Your task to perform on an android device: Add "alienware area 51" to the cart on walmart.com Image 0: 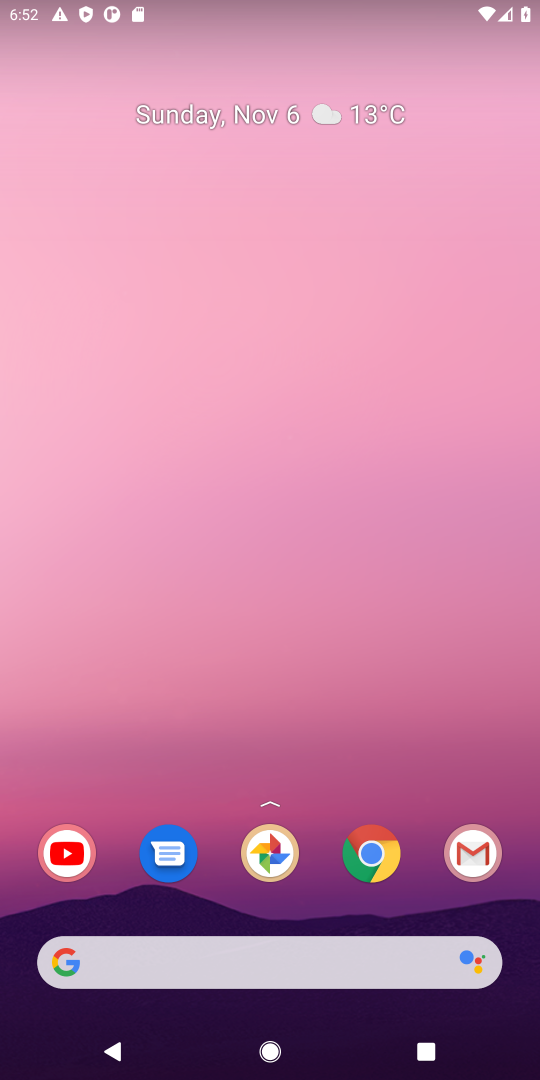
Step 0: click (368, 857)
Your task to perform on an android device: Add "alienware area 51" to the cart on walmart.com Image 1: 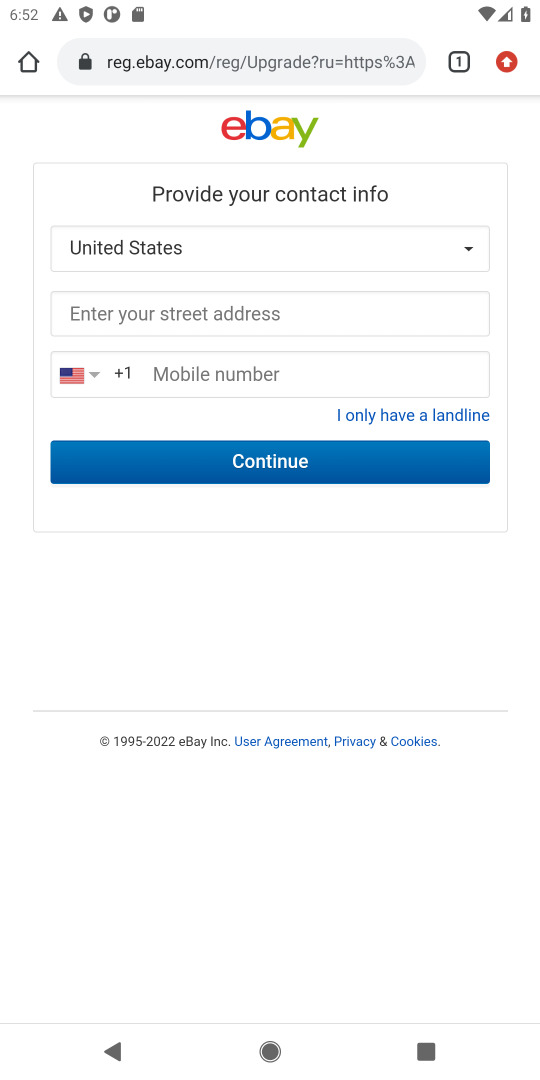
Step 1: click (276, 37)
Your task to perform on an android device: Add "alienware area 51" to the cart on walmart.com Image 2: 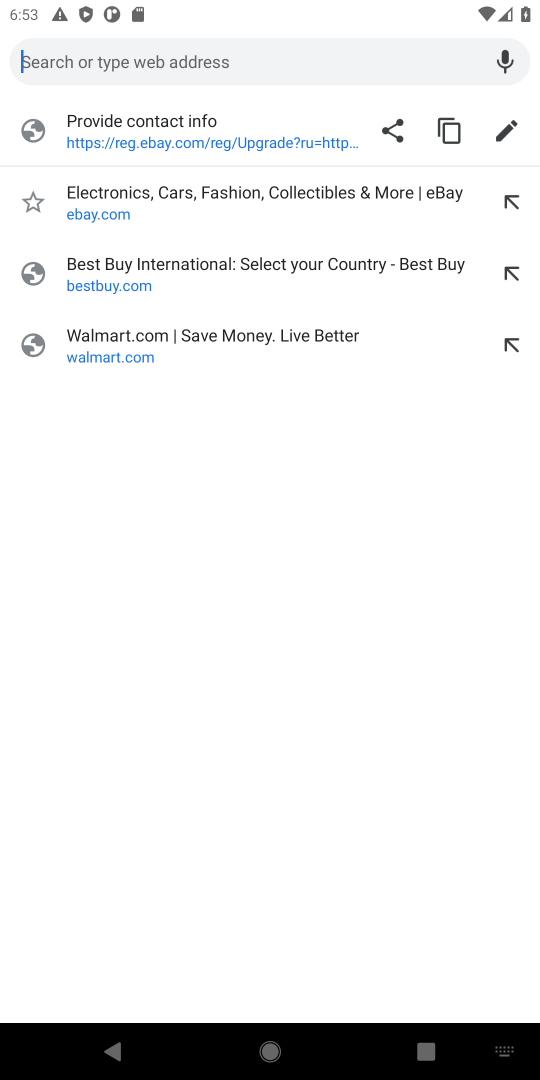
Step 2: type "walmart.com"
Your task to perform on an android device: Add "alienware area 51" to the cart on walmart.com Image 3: 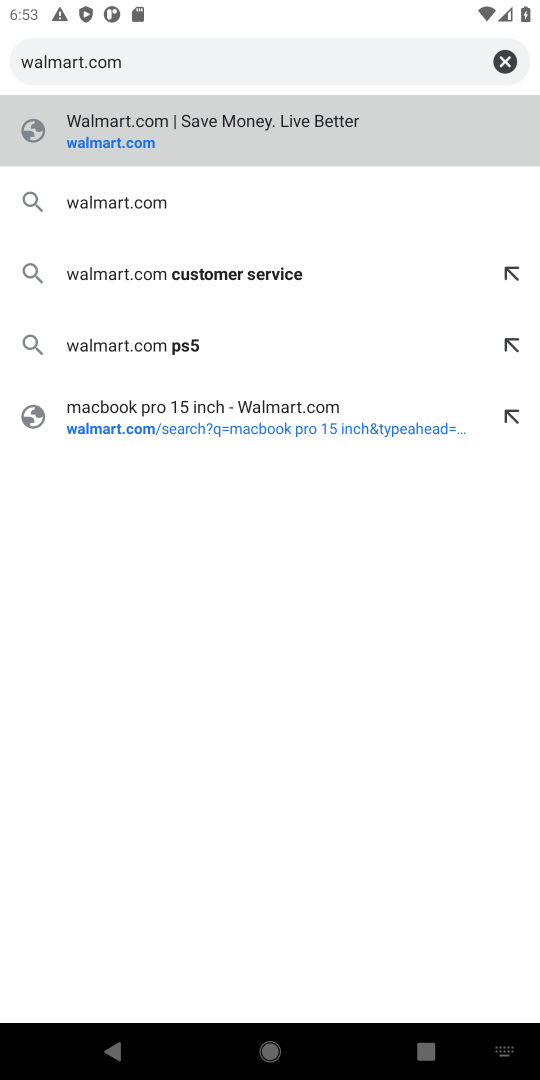
Step 3: click (93, 122)
Your task to perform on an android device: Add "alienware area 51" to the cart on walmart.com Image 4: 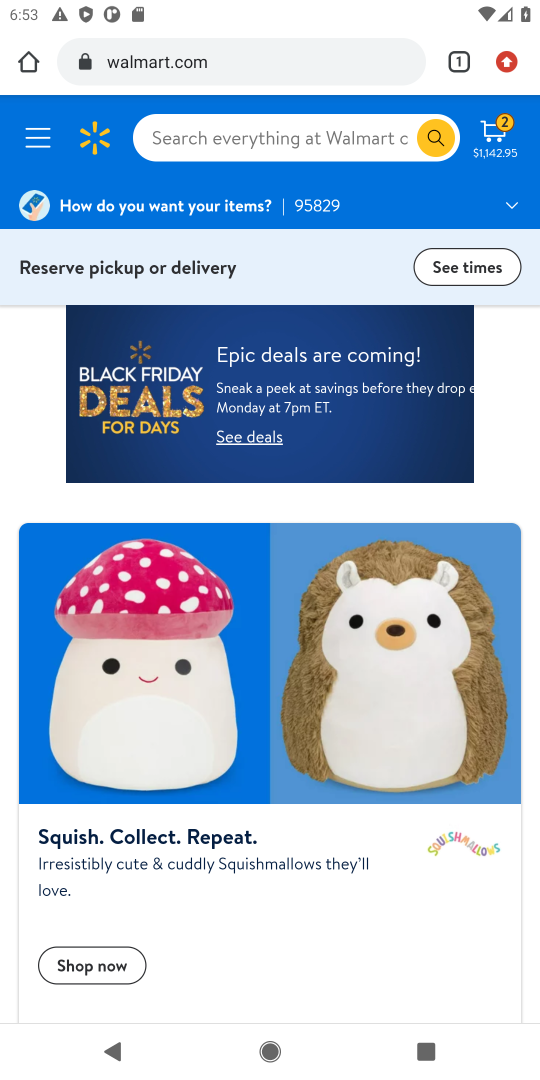
Step 4: click (183, 136)
Your task to perform on an android device: Add "alienware area 51" to the cart on walmart.com Image 5: 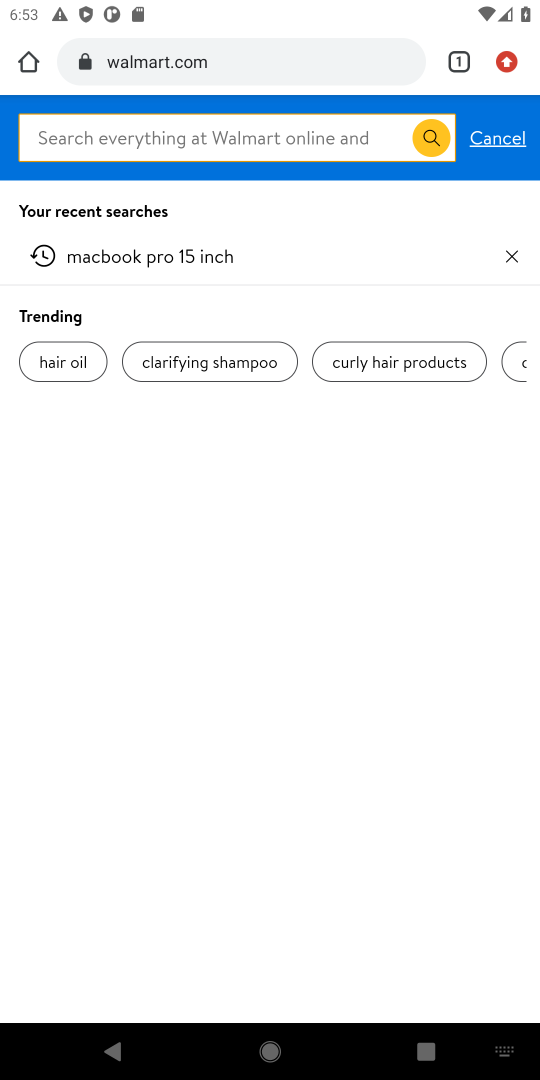
Step 5: type "alienware area 51"
Your task to perform on an android device: Add "alienware area 51" to the cart on walmart.com Image 6: 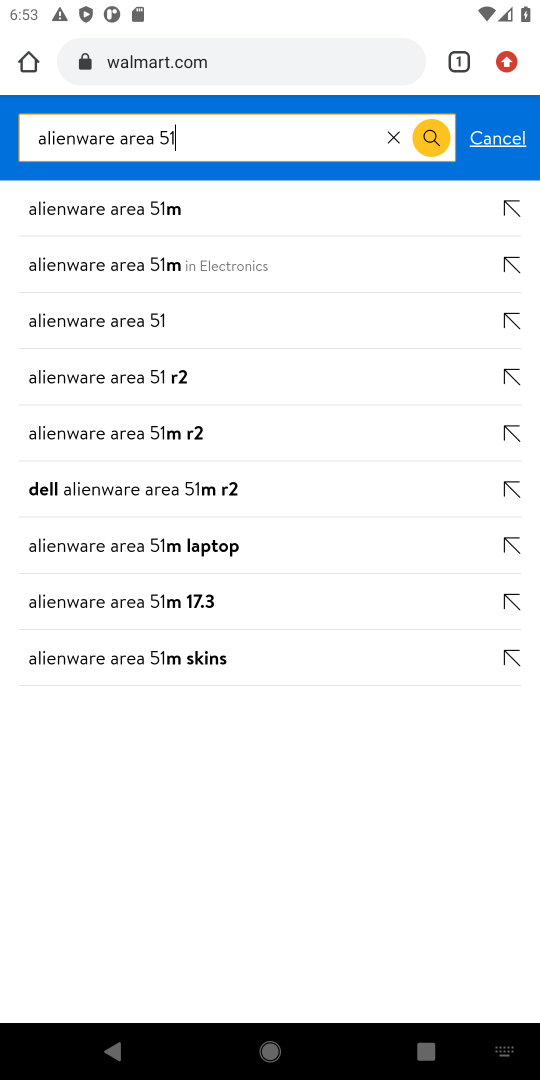
Step 6: click (113, 321)
Your task to perform on an android device: Add "alienware area 51" to the cart on walmart.com Image 7: 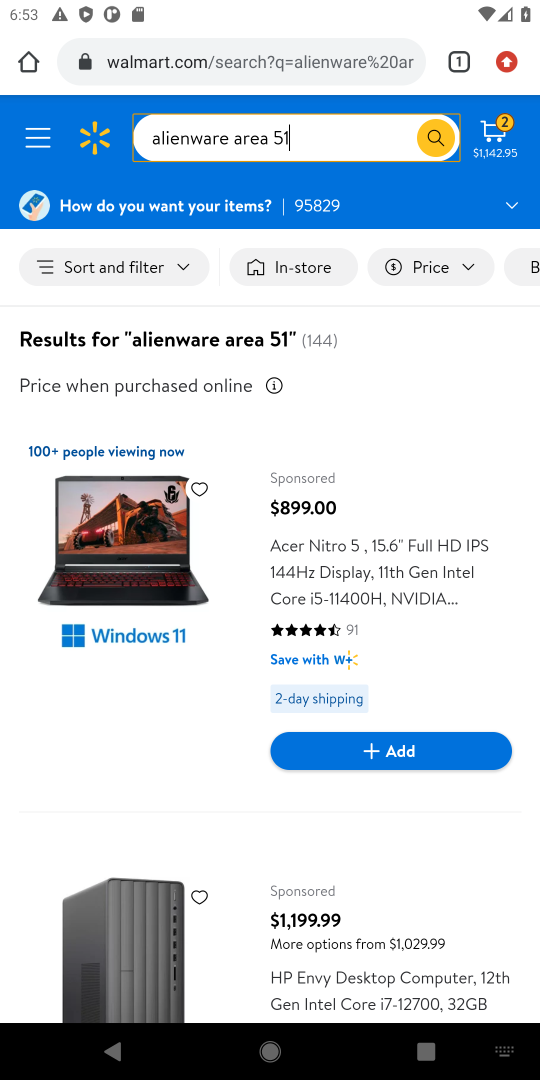
Step 7: drag from (442, 691) to (403, 231)
Your task to perform on an android device: Add "alienware area 51" to the cart on walmart.com Image 8: 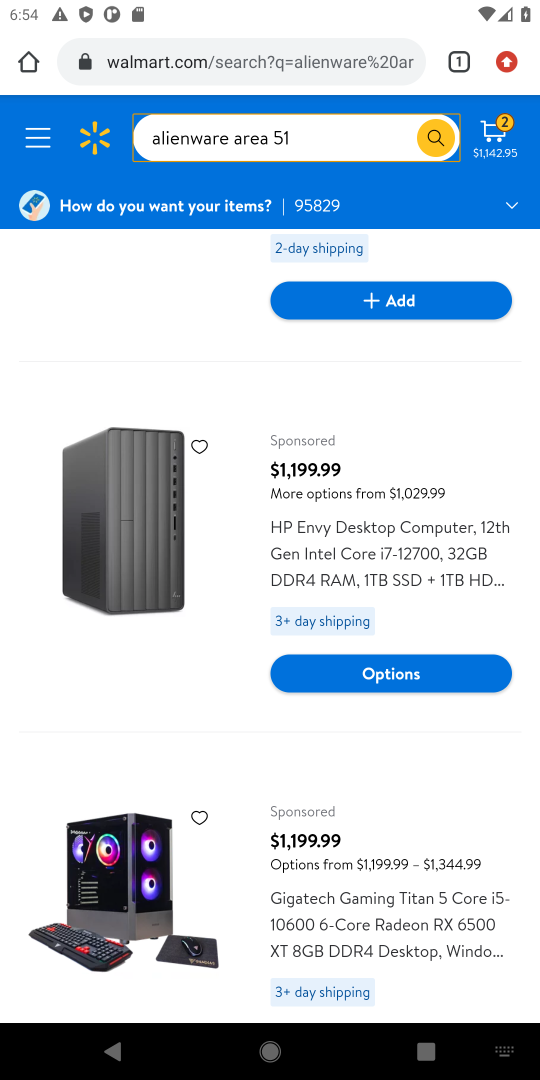
Step 8: drag from (409, 629) to (362, 302)
Your task to perform on an android device: Add "alienware area 51" to the cart on walmart.com Image 9: 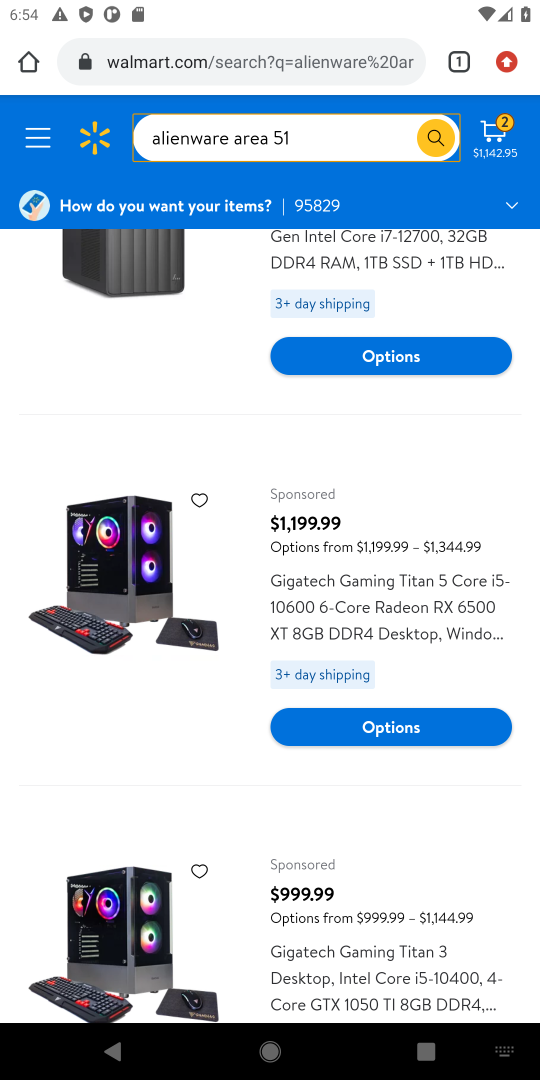
Step 9: drag from (390, 661) to (369, 263)
Your task to perform on an android device: Add "alienware area 51" to the cart on walmart.com Image 10: 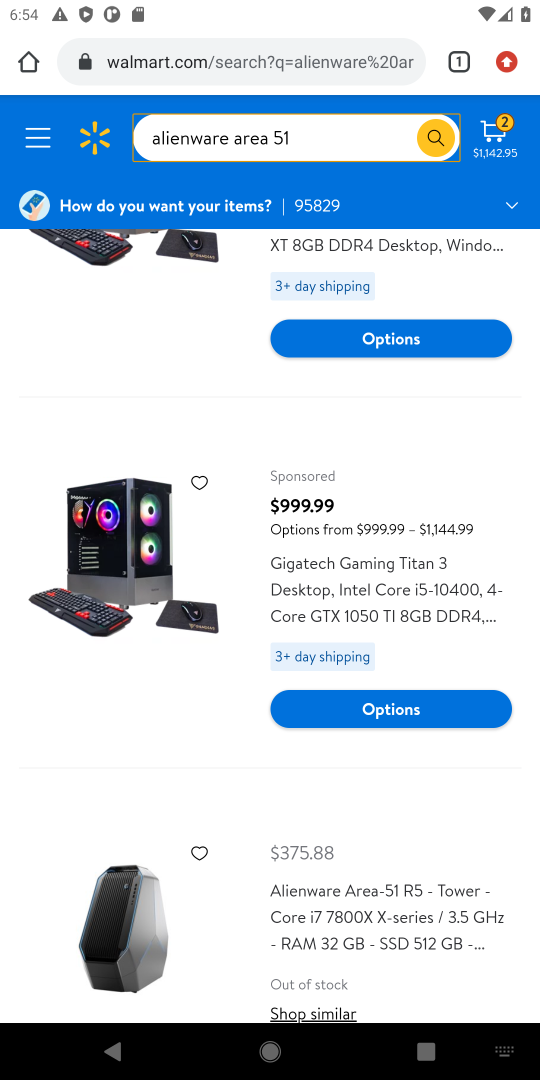
Step 10: drag from (348, 919) to (328, 482)
Your task to perform on an android device: Add "alienware area 51" to the cart on walmart.com Image 11: 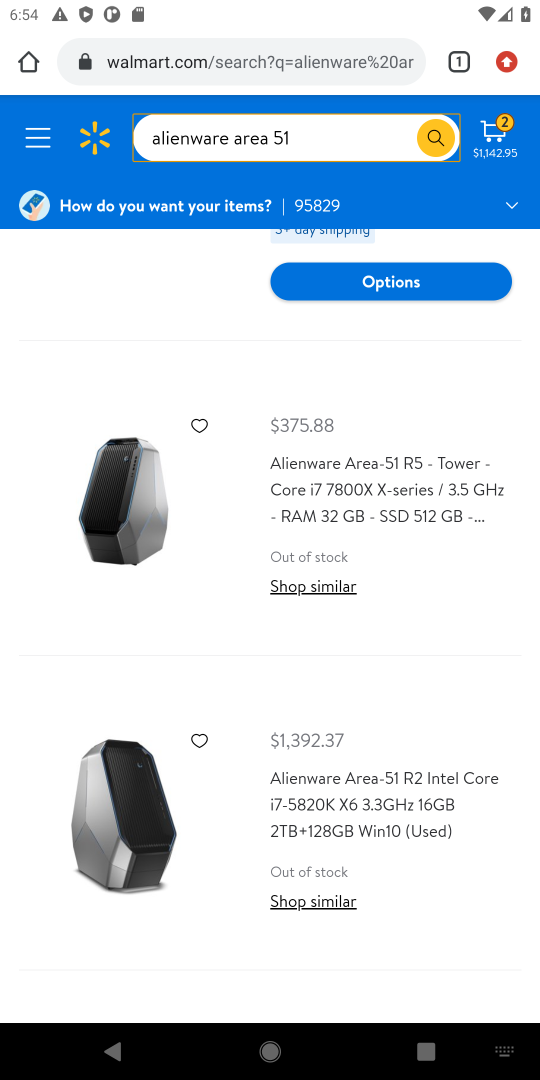
Step 11: click (285, 584)
Your task to perform on an android device: Add "alienware area 51" to the cart on walmart.com Image 12: 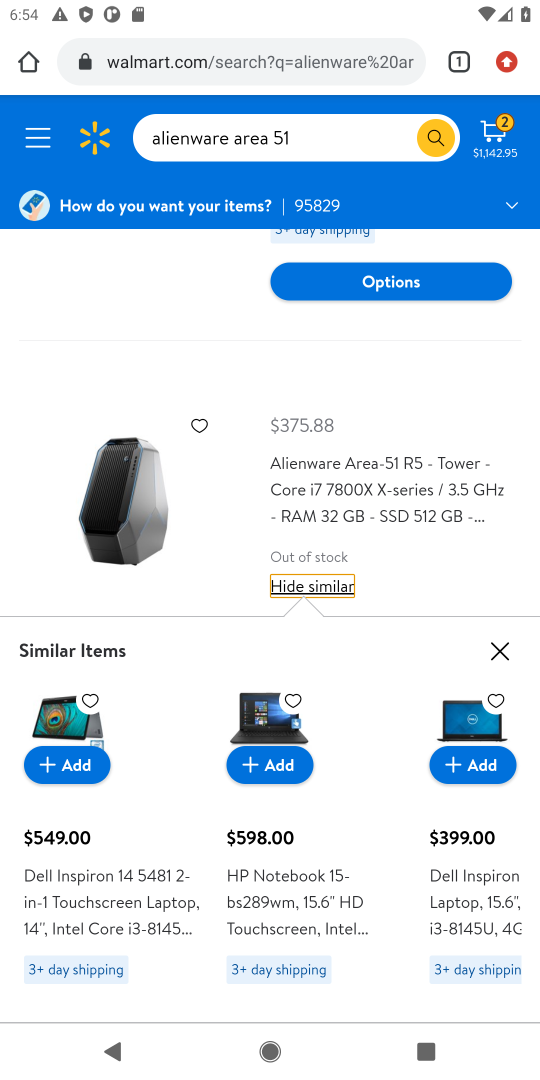
Step 12: click (496, 644)
Your task to perform on an android device: Add "alienware area 51" to the cart on walmart.com Image 13: 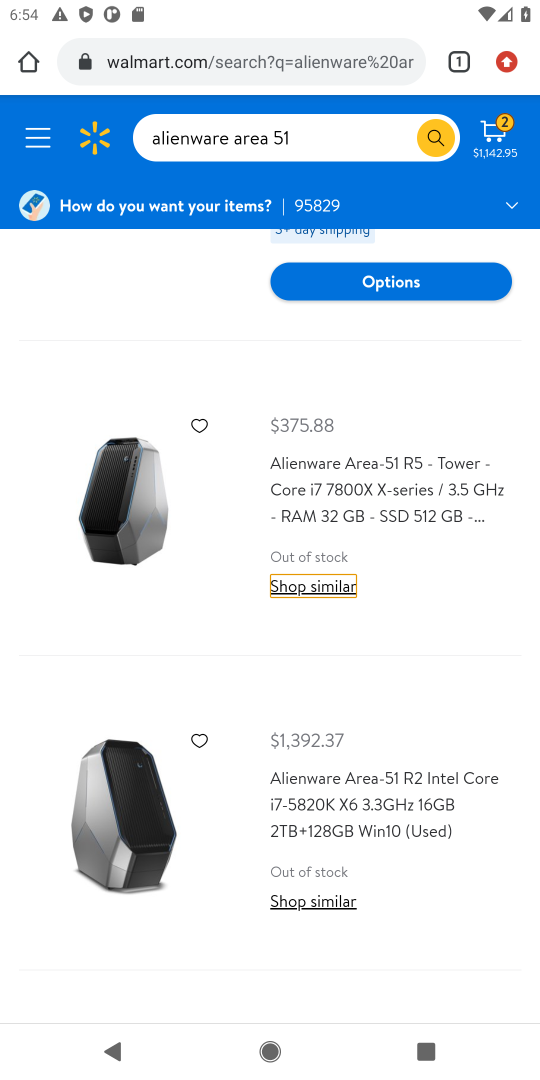
Step 13: drag from (420, 771) to (388, 338)
Your task to perform on an android device: Add "alienware area 51" to the cart on walmart.com Image 14: 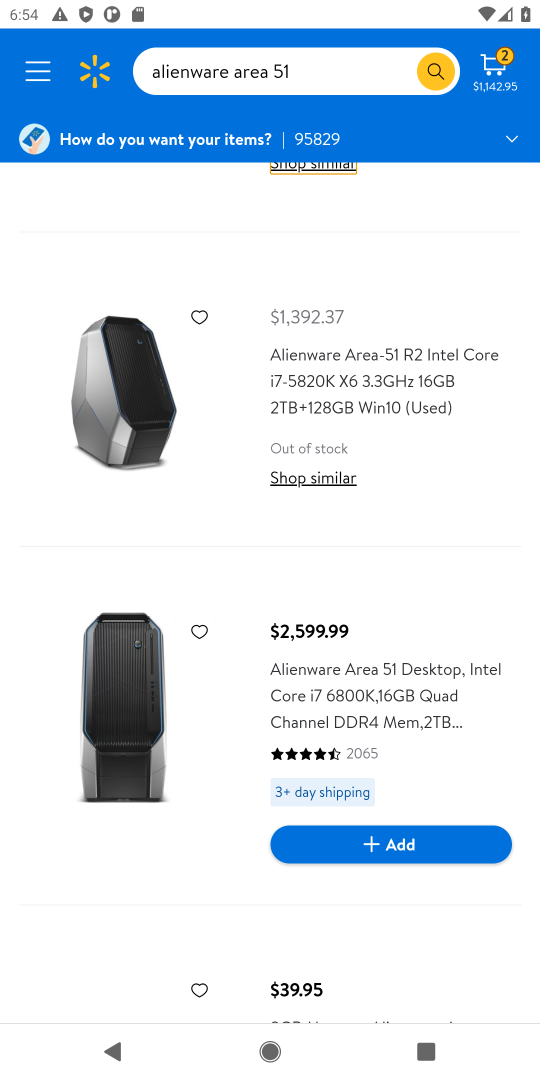
Step 14: drag from (383, 441) to (389, 293)
Your task to perform on an android device: Add "alienware area 51" to the cart on walmart.com Image 15: 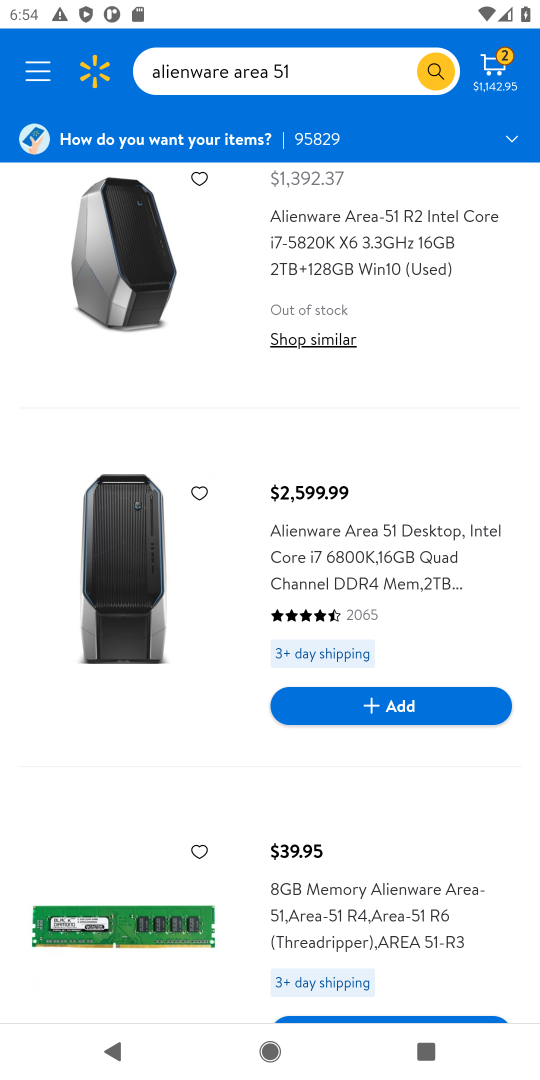
Step 15: click (369, 702)
Your task to perform on an android device: Add "alienware area 51" to the cart on walmart.com Image 16: 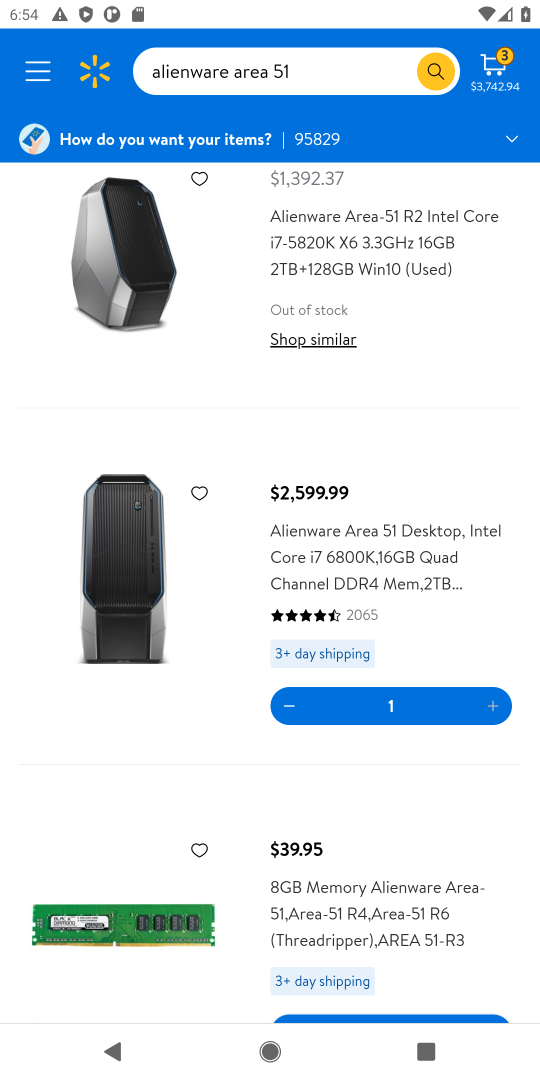
Step 16: task complete